Your task to perform on an android device: Find coffee shops on Maps Image 0: 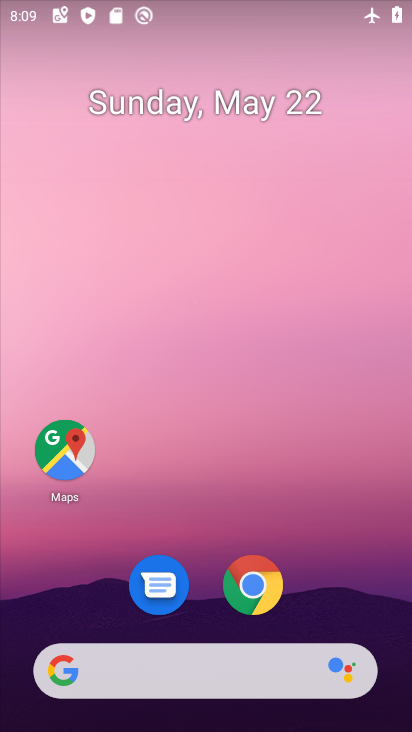
Step 0: click (46, 447)
Your task to perform on an android device: Find coffee shops on Maps Image 1: 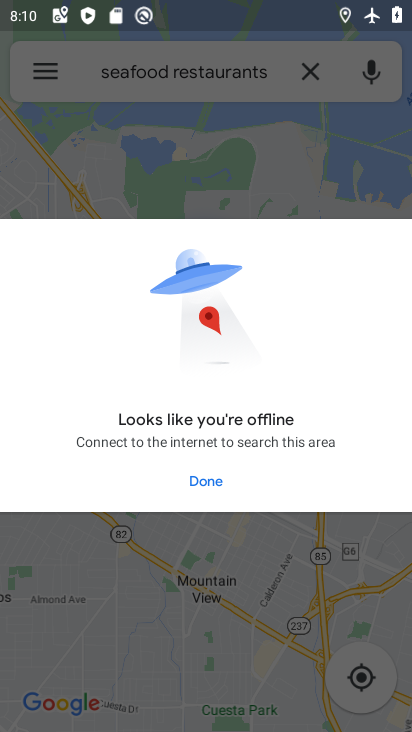
Step 1: task complete